Your task to perform on an android device: Open Google Chrome and open the bookmarks view Image 0: 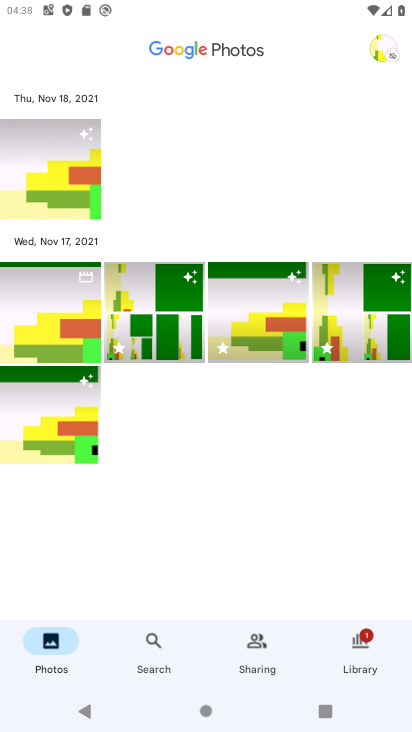
Step 0: press home button
Your task to perform on an android device: Open Google Chrome and open the bookmarks view Image 1: 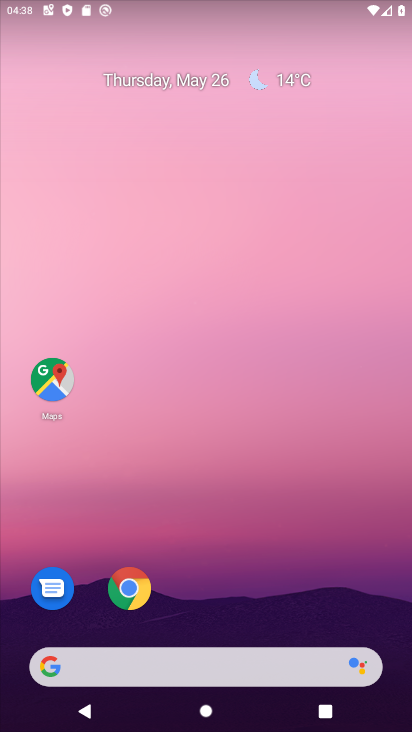
Step 1: click (272, 565)
Your task to perform on an android device: Open Google Chrome and open the bookmarks view Image 2: 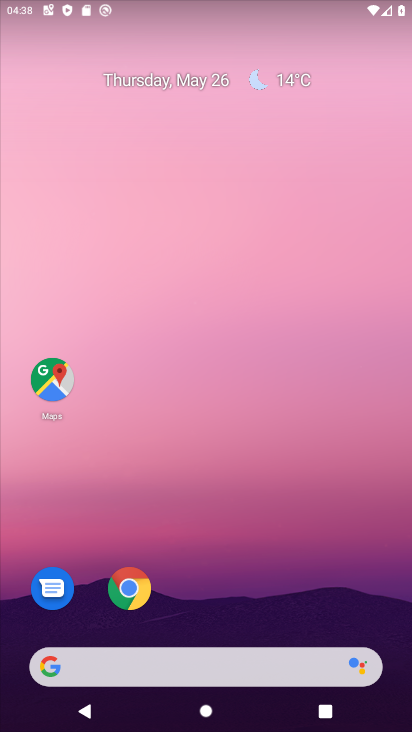
Step 2: drag from (272, 565) to (276, 254)
Your task to perform on an android device: Open Google Chrome and open the bookmarks view Image 3: 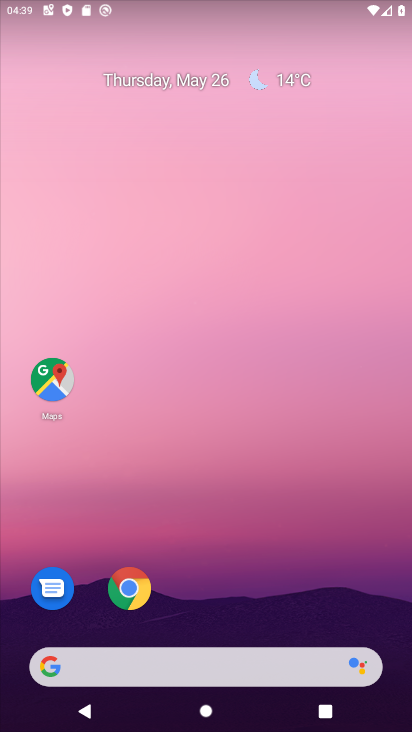
Step 3: click (127, 606)
Your task to perform on an android device: Open Google Chrome and open the bookmarks view Image 4: 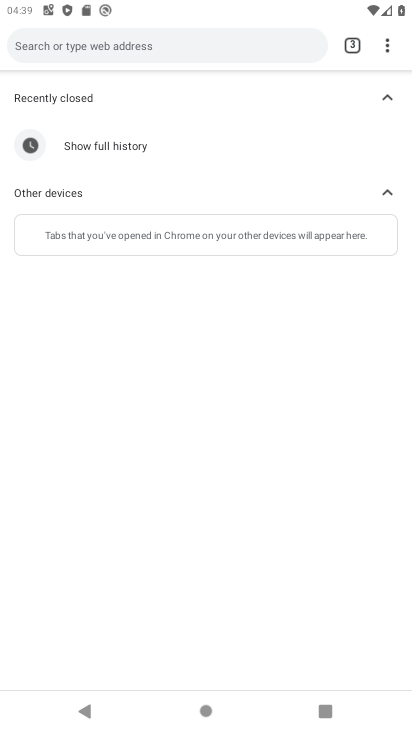
Step 4: click (386, 58)
Your task to perform on an android device: Open Google Chrome and open the bookmarks view Image 5: 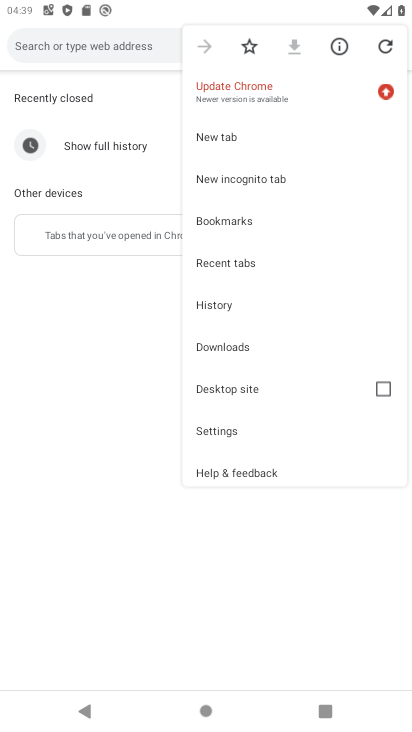
Step 5: click (270, 430)
Your task to perform on an android device: Open Google Chrome and open the bookmarks view Image 6: 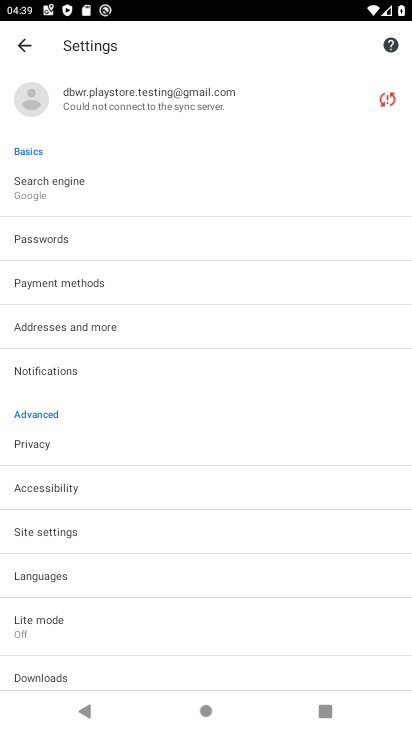
Step 6: click (18, 39)
Your task to perform on an android device: Open Google Chrome and open the bookmarks view Image 7: 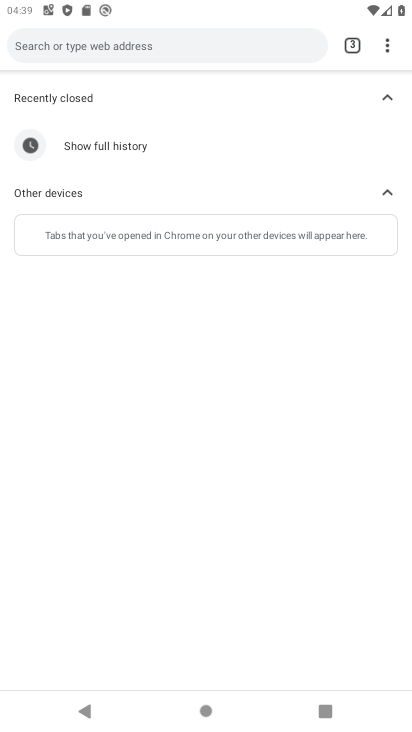
Step 7: click (396, 47)
Your task to perform on an android device: Open Google Chrome and open the bookmarks view Image 8: 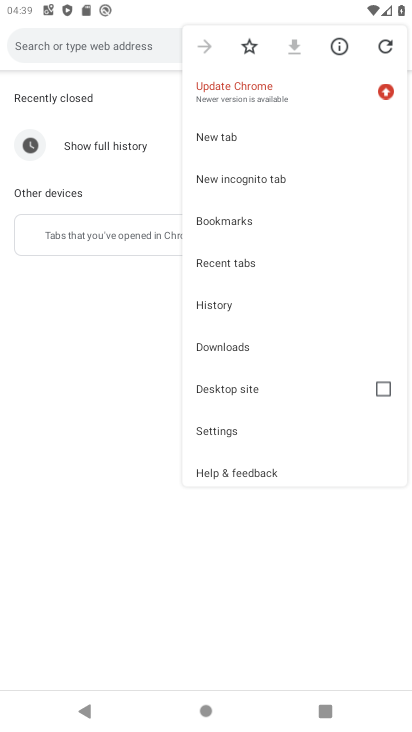
Step 8: click (266, 222)
Your task to perform on an android device: Open Google Chrome and open the bookmarks view Image 9: 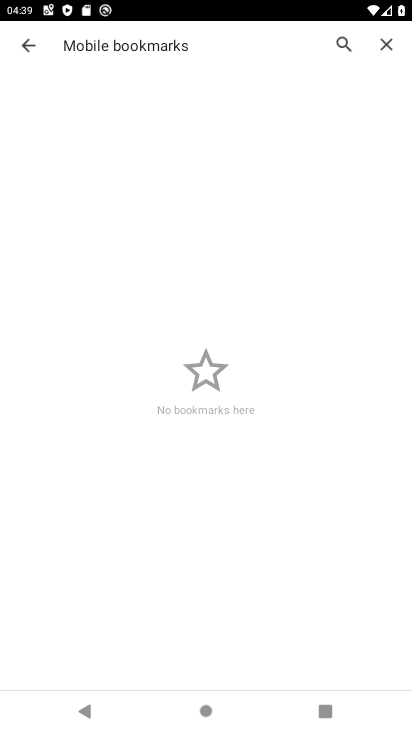
Step 9: task complete